Your task to perform on an android device: Open ESPN.com Image 0: 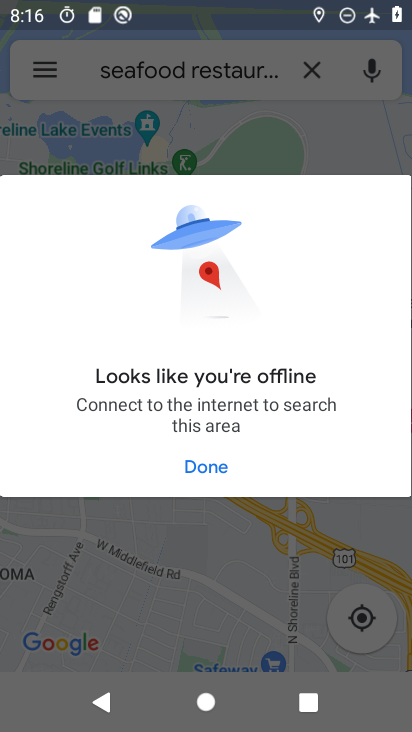
Step 0: press home button
Your task to perform on an android device: Open ESPN.com Image 1: 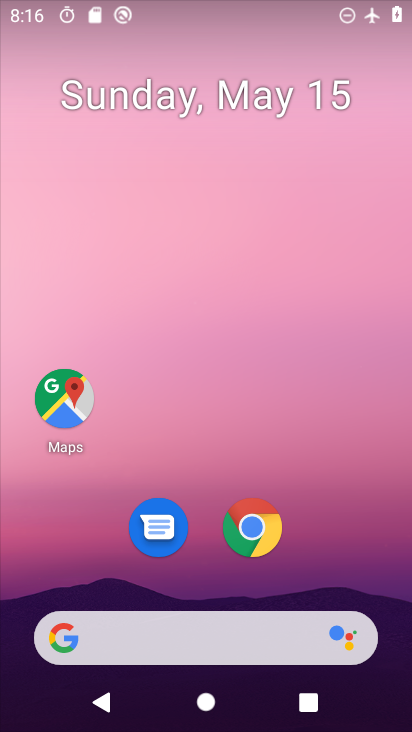
Step 1: click (253, 536)
Your task to perform on an android device: Open ESPN.com Image 2: 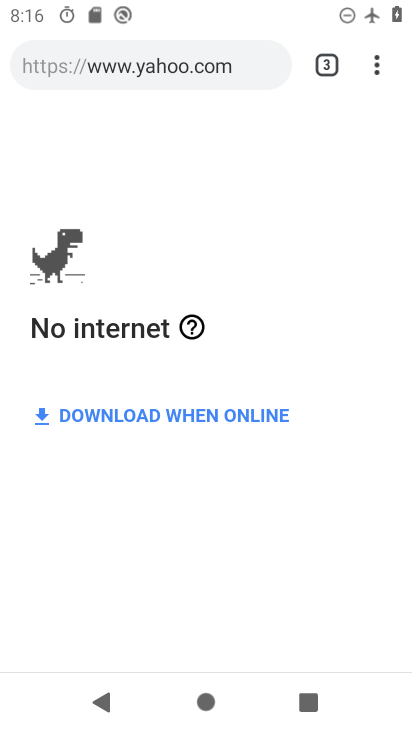
Step 2: click (326, 54)
Your task to perform on an android device: Open ESPN.com Image 3: 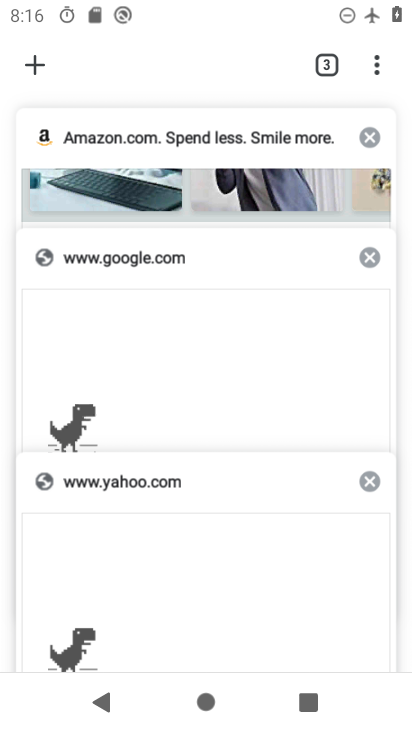
Step 3: click (28, 60)
Your task to perform on an android device: Open ESPN.com Image 4: 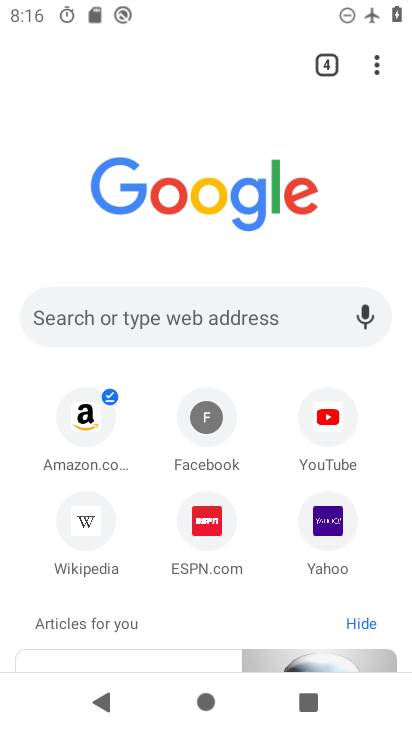
Step 4: click (211, 515)
Your task to perform on an android device: Open ESPN.com Image 5: 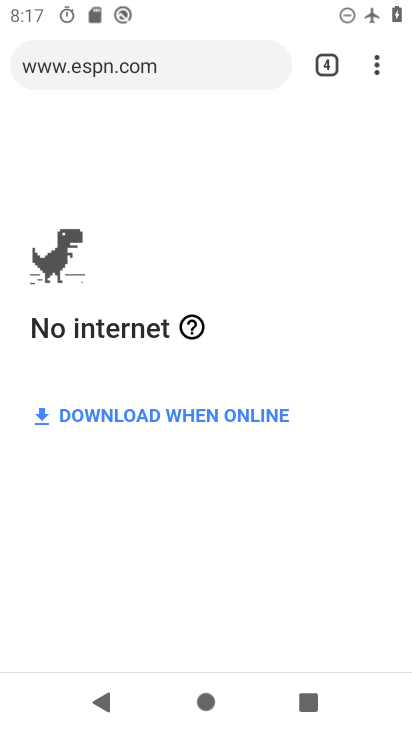
Step 5: task complete